Your task to perform on an android device: Find coffee shops on Maps Image 0: 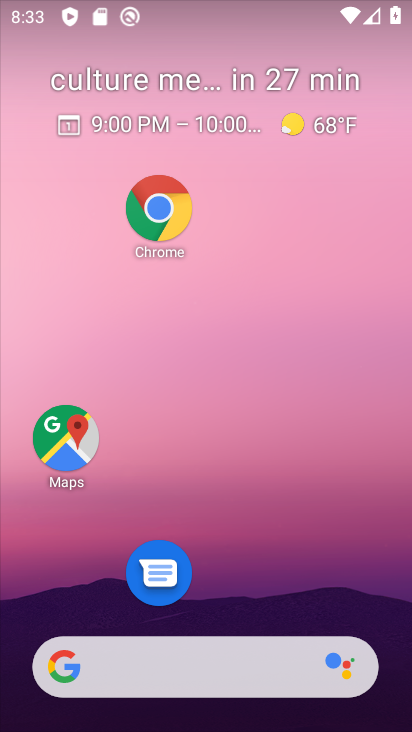
Step 0: drag from (204, 387) to (176, 202)
Your task to perform on an android device: Find coffee shops on Maps Image 1: 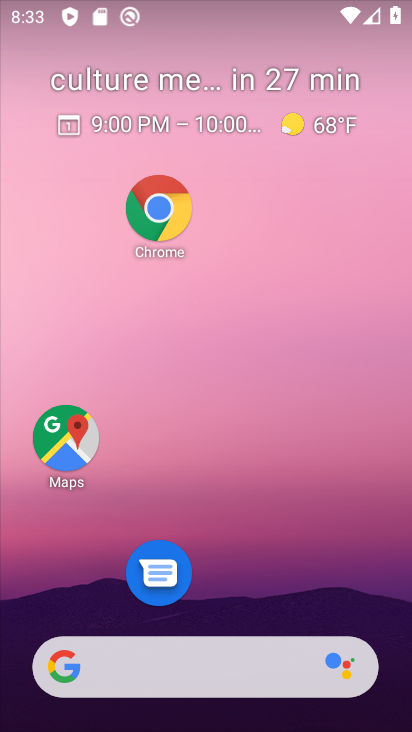
Step 1: drag from (239, 674) to (186, 0)
Your task to perform on an android device: Find coffee shops on Maps Image 2: 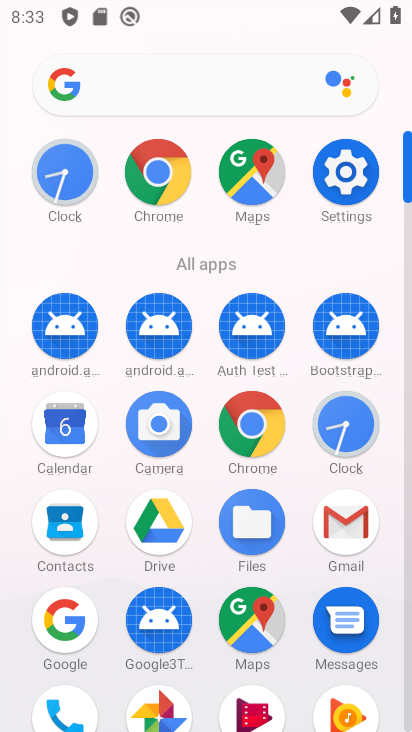
Step 2: click (253, 630)
Your task to perform on an android device: Find coffee shops on Maps Image 3: 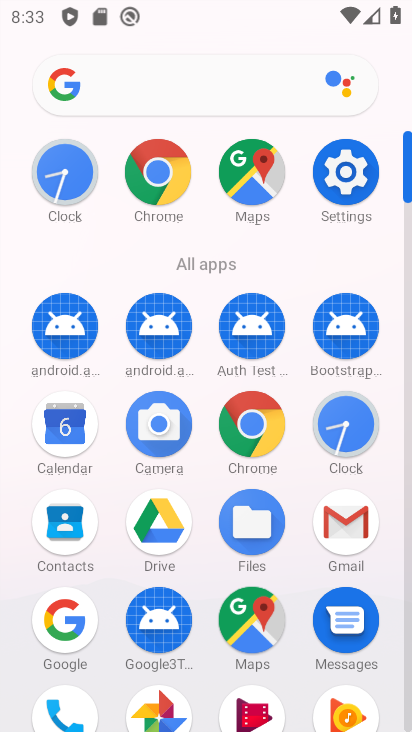
Step 3: click (254, 627)
Your task to perform on an android device: Find coffee shops on Maps Image 4: 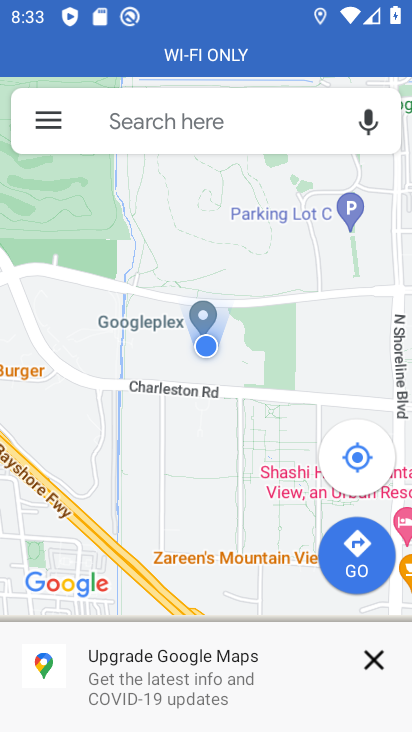
Step 4: click (119, 113)
Your task to perform on an android device: Find coffee shops on Maps Image 5: 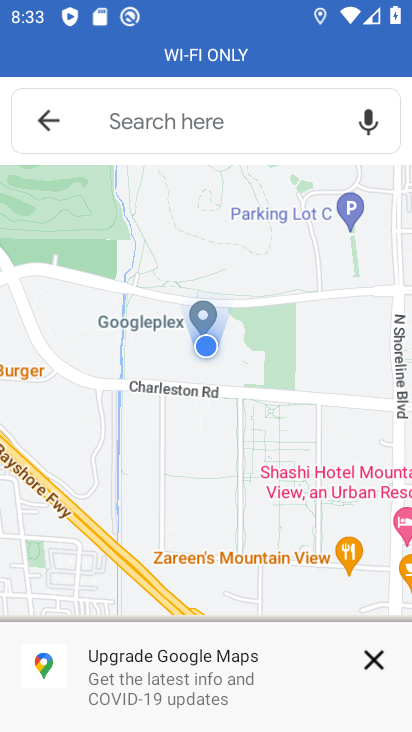
Step 5: click (108, 120)
Your task to perform on an android device: Find coffee shops on Maps Image 6: 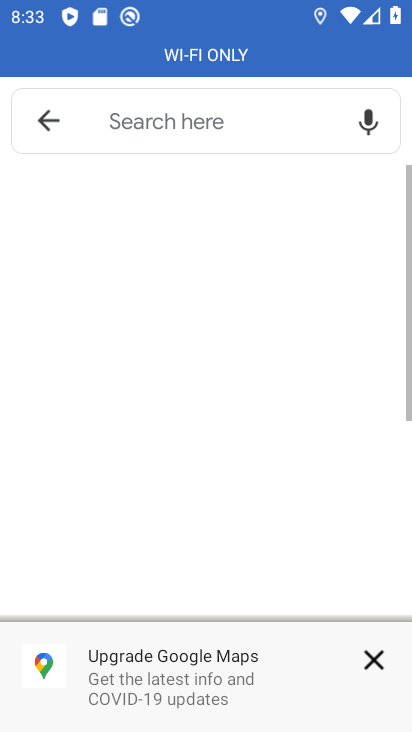
Step 6: click (108, 120)
Your task to perform on an android device: Find coffee shops on Maps Image 7: 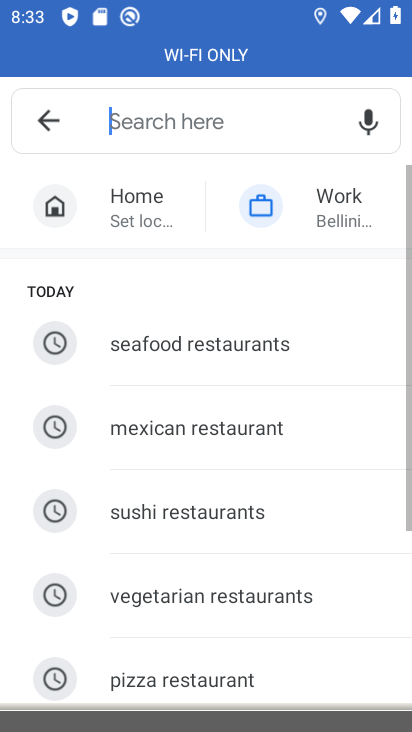
Step 7: click (108, 120)
Your task to perform on an android device: Find coffee shops on Maps Image 8: 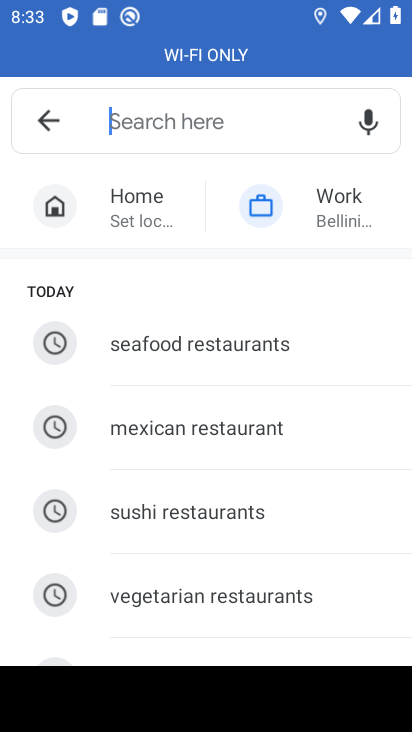
Step 8: type "Coffee"
Your task to perform on an android device: Find coffee shops on Maps Image 9: 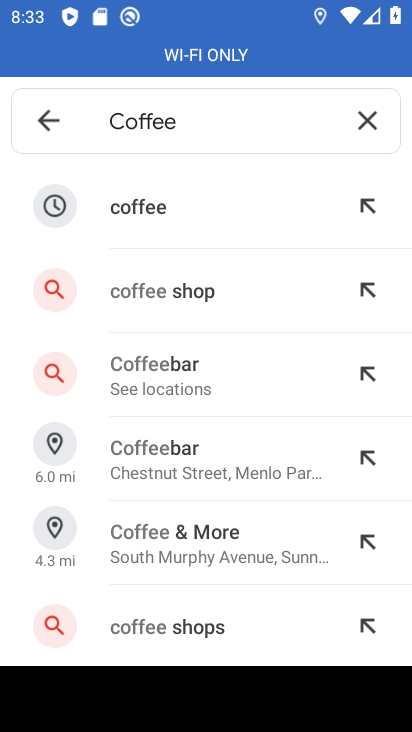
Step 9: click (136, 221)
Your task to perform on an android device: Find coffee shops on Maps Image 10: 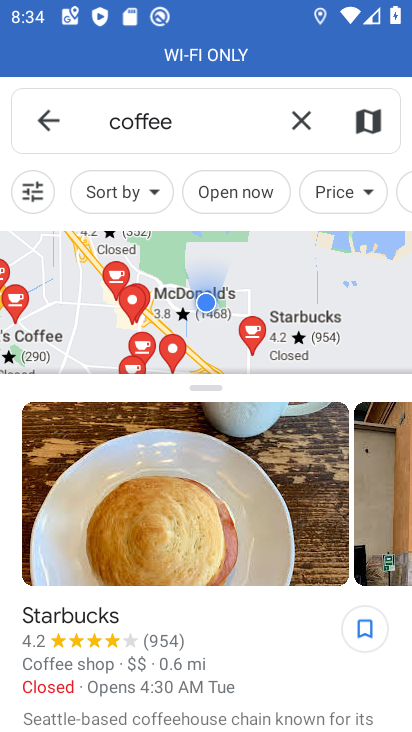
Step 10: task complete